Your task to perform on an android device: Turn off the flashlight Image 0: 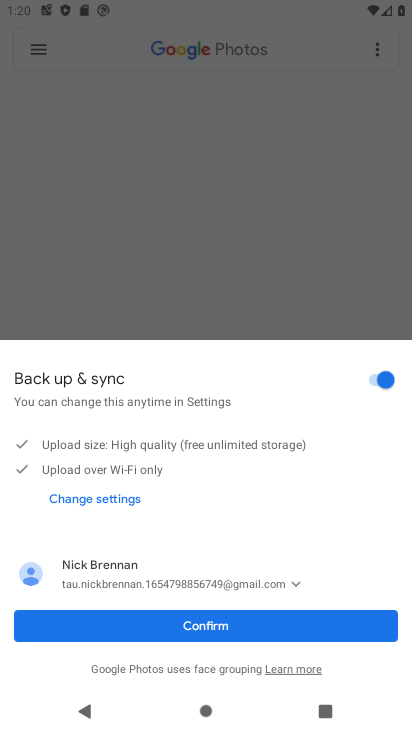
Step 0: press home button
Your task to perform on an android device: Turn off the flashlight Image 1: 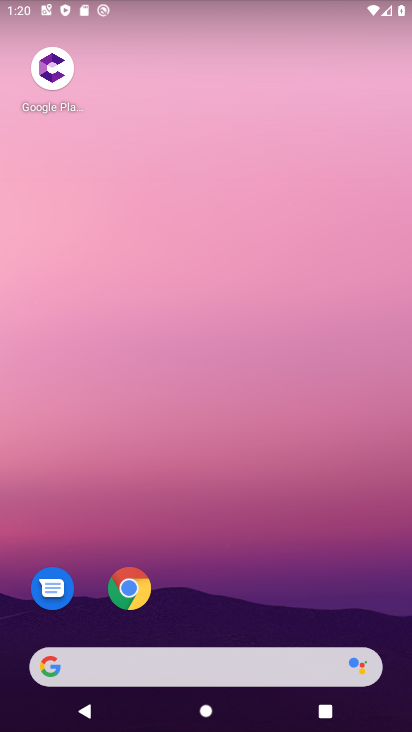
Step 1: drag from (188, 5) to (201, 432)
Your task to perform on an android device: Turn off the flashlight Image 2: 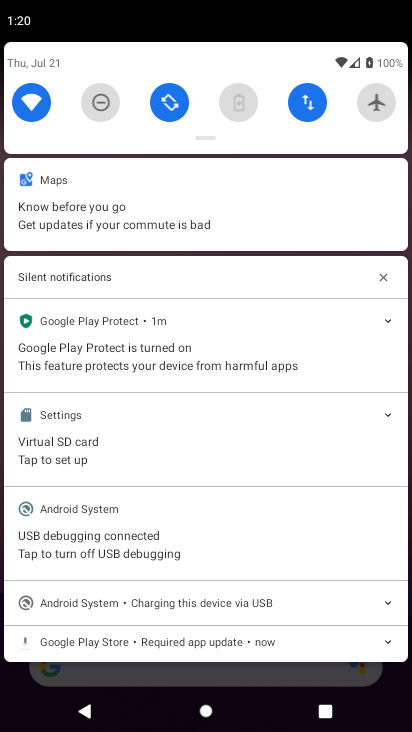
Step 2: drag from (207, 125) to (201, 532)
Your task to perform on an android device: Turn off the flashlight Image 3: 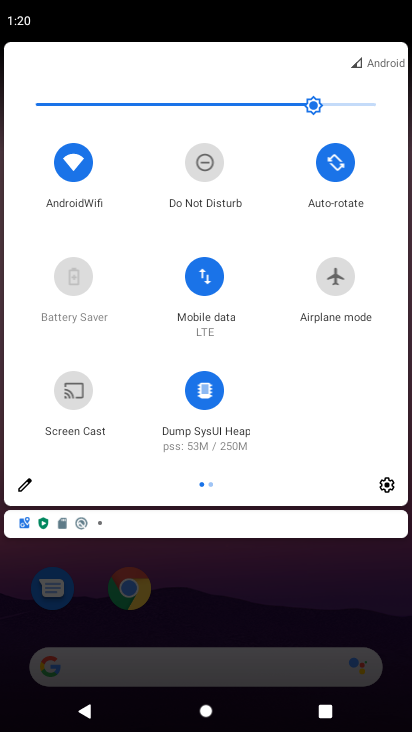
Step 3: click (15, 492)
Your task to perform on an android device: Turn off the flashlight Image 4: 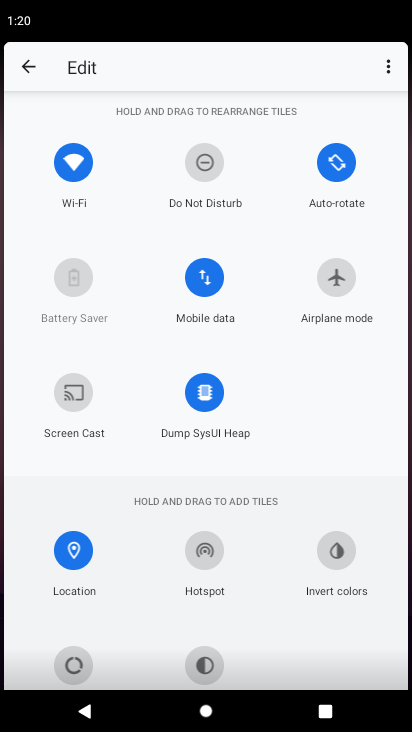
Step 4: task complete